Your task to perform on an android device: clear history in the chrome app Image 0: 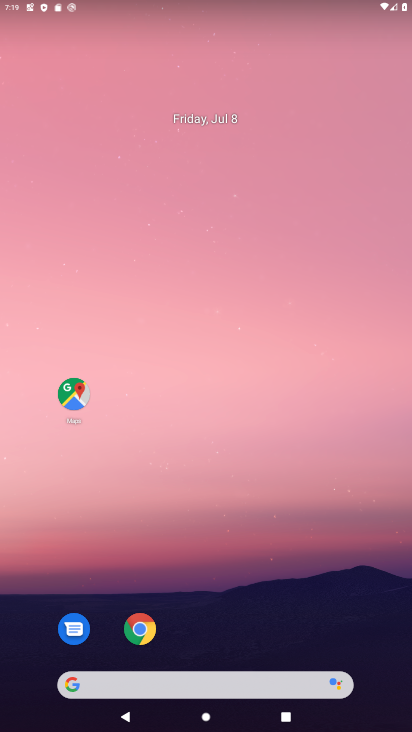
Step 0: drag from (299, 622) to (340, 48)
Your task to perform on an android device: clear history in the chrome app Image 1: 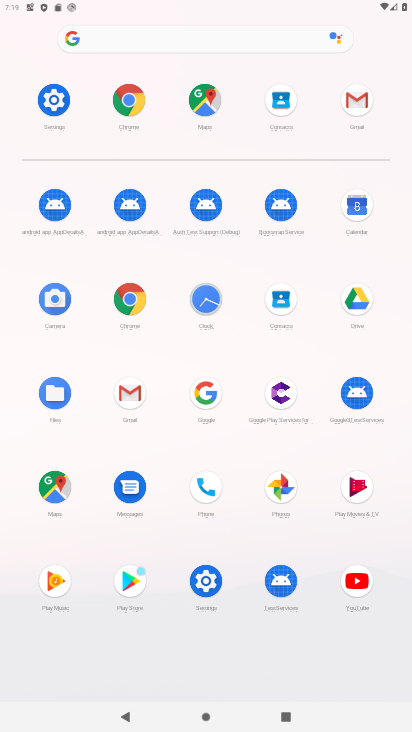
Step 1: click (136, 85)
Your task to perform on an android device: clear history in the chrome app Image 2: 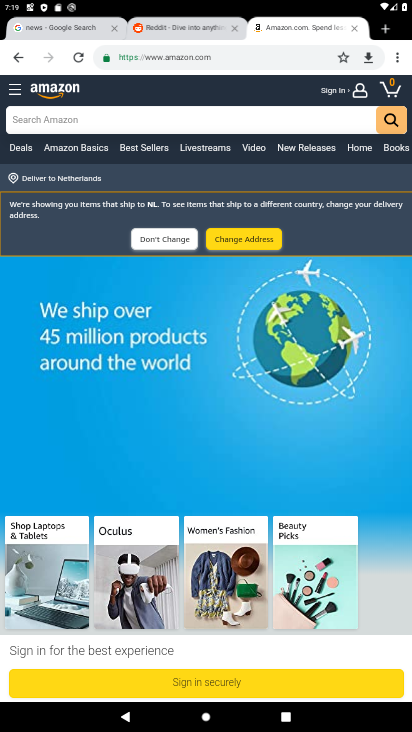
Step 2: drag from (404, 58) to (278, 172)
Your task to perform on an android device: clear history in the chrome app Image 3: 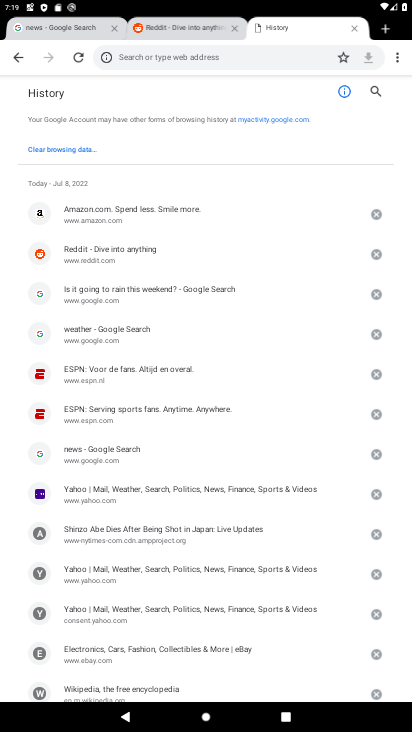
Step 3: click (81, 147)
Your task to perform on an android device: clear history in the chrome app Image 4: 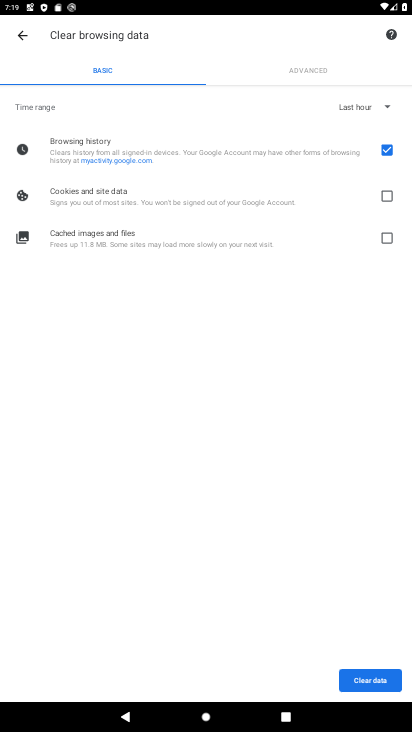
Step 4: click (372, 673)
Your task to perform on an android device: clear history in the chrome app Image 5: 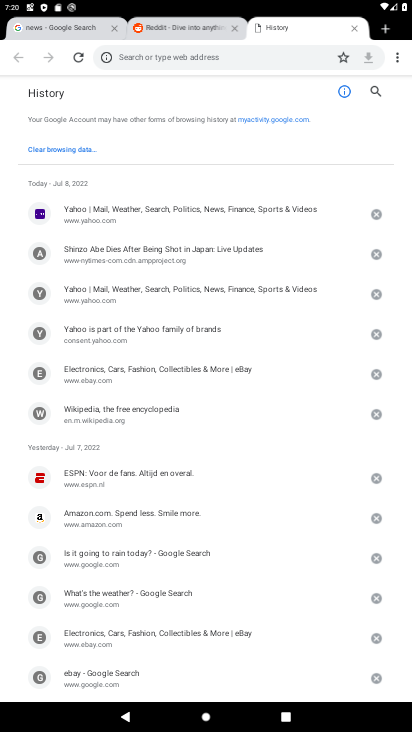
Step 5: click (57, 158)
Your task to perform on an android device: clear history in the chrome app Image 6: 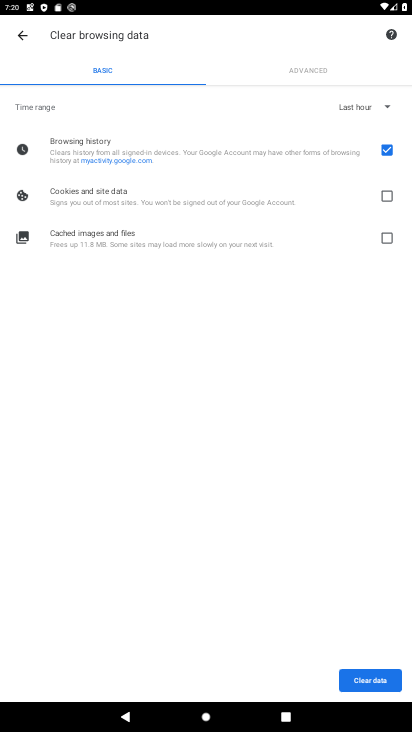
Step 6: click (363, 112)
Your task to perform on an android device: clear history in the chrome app Image 7: 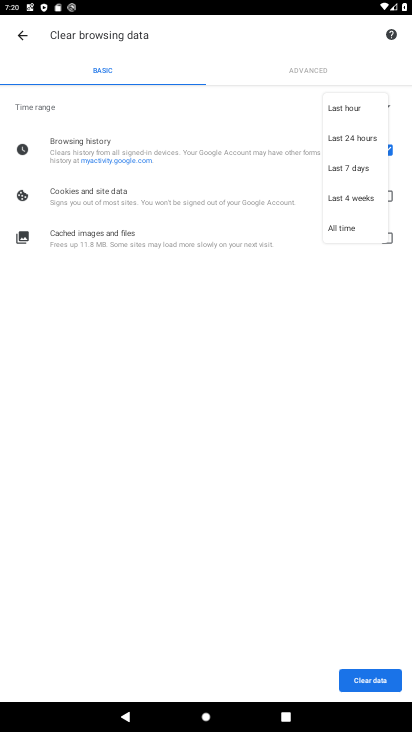
Step 7: click (356, 224)
Your task to perform on an android device: clear history in the chrome app Image 8: 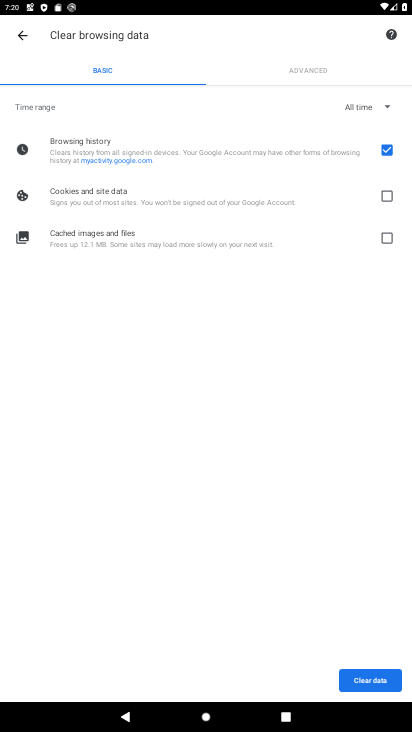
Step 8: click (385, 205)
Your task to perform on an android device: clear history in the chrome app Image 9: 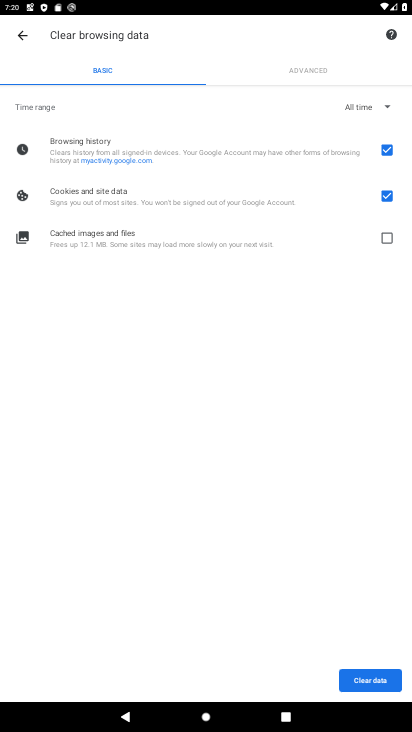
Step 9: click (385, 229)
Your task to perform on an android device: clear history in the chrome app Image 10: 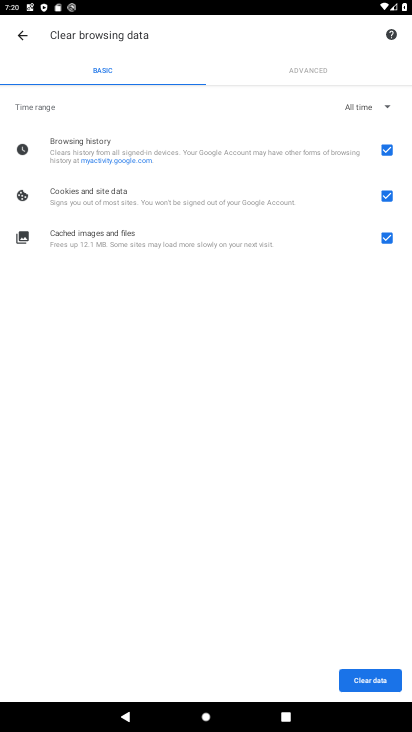
Step 10: click (391, 687)
Your task to perform on an android device: clear history in the chrome app Image 11: 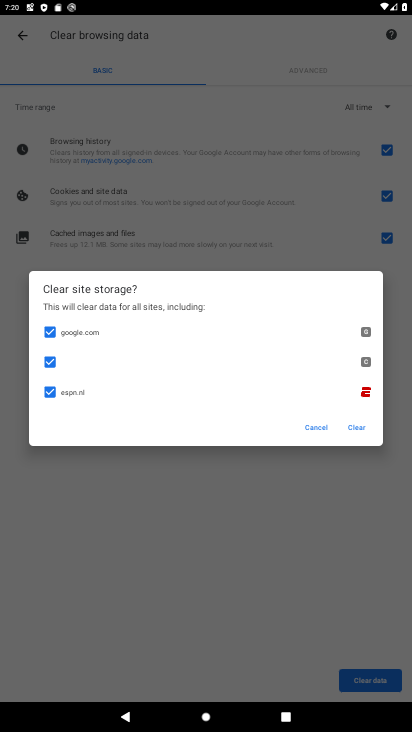
Step 11: click (355, 427)
Your task to perform on an android device: clear history in the chrome app Image 12: 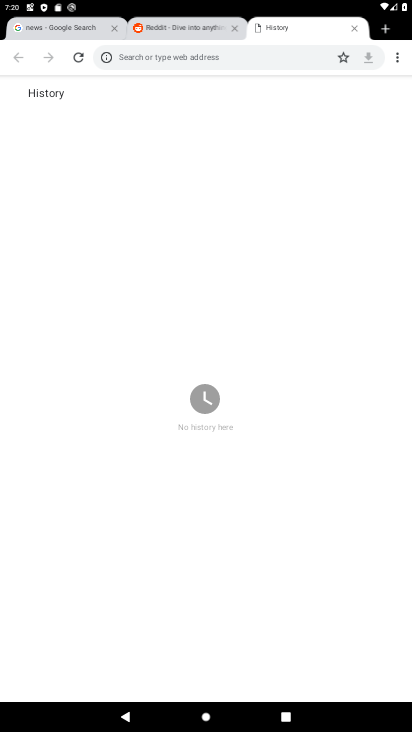
Step 12: task complete